Your task to perform on an android device: open app "The Home Depot" Image 0: 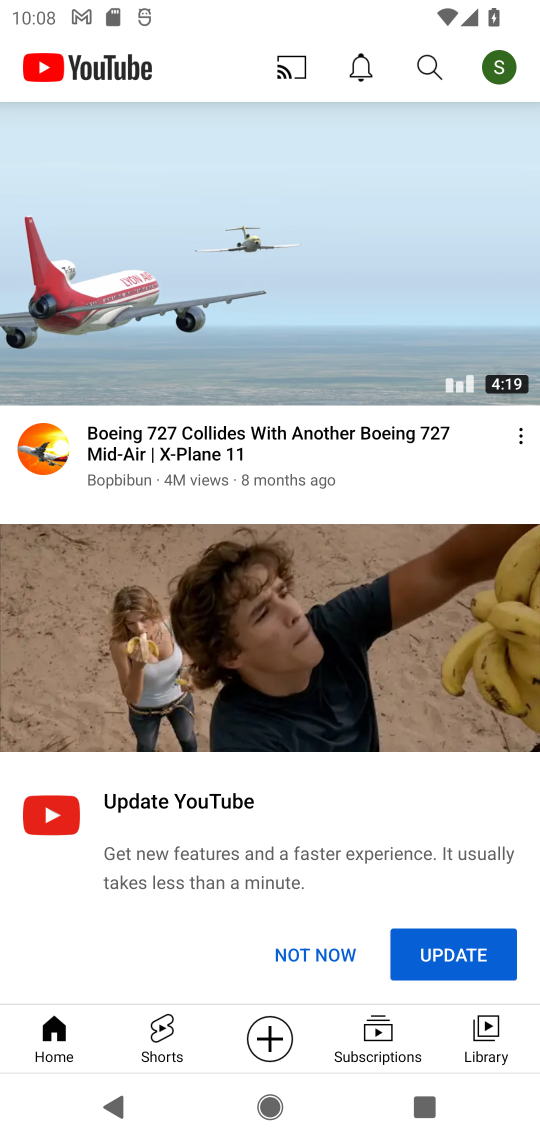
Step 0: press home button
Your task to perform on an android device: open app "The Home Depot" Image 1: 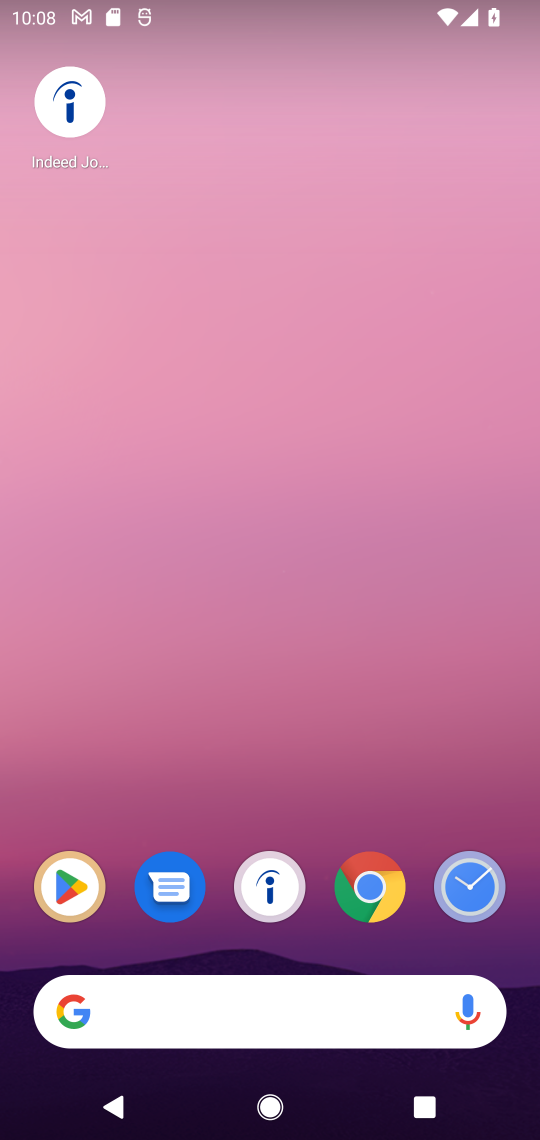
Step 1: drag from (310, 941) to (396, 42)
Your task to perform on an android device: open app "The Home Depot" Image 2: 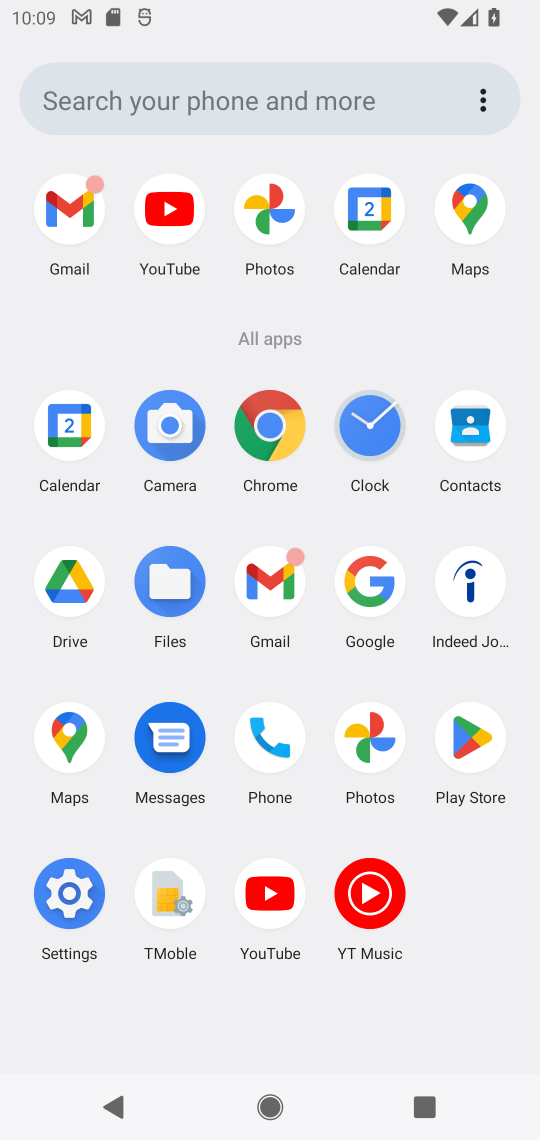
Step 2: click (489, 725)
Your task to perform on an android device: open app "The Home Depot" Image 3: 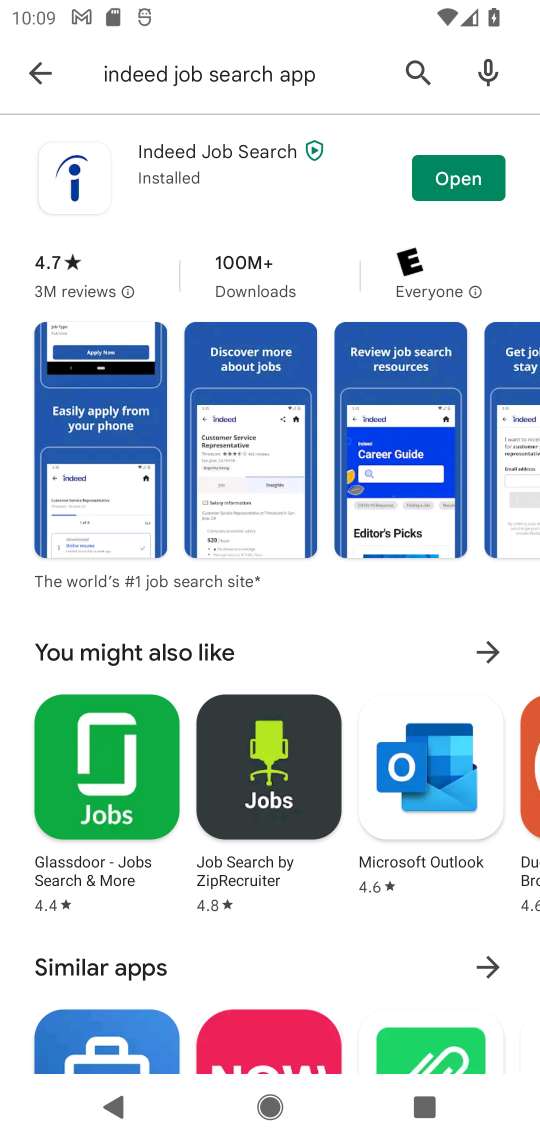
Step 3: click (24, 63)
Your task to perform on an android device: open app "The Home Depot" Image 4: 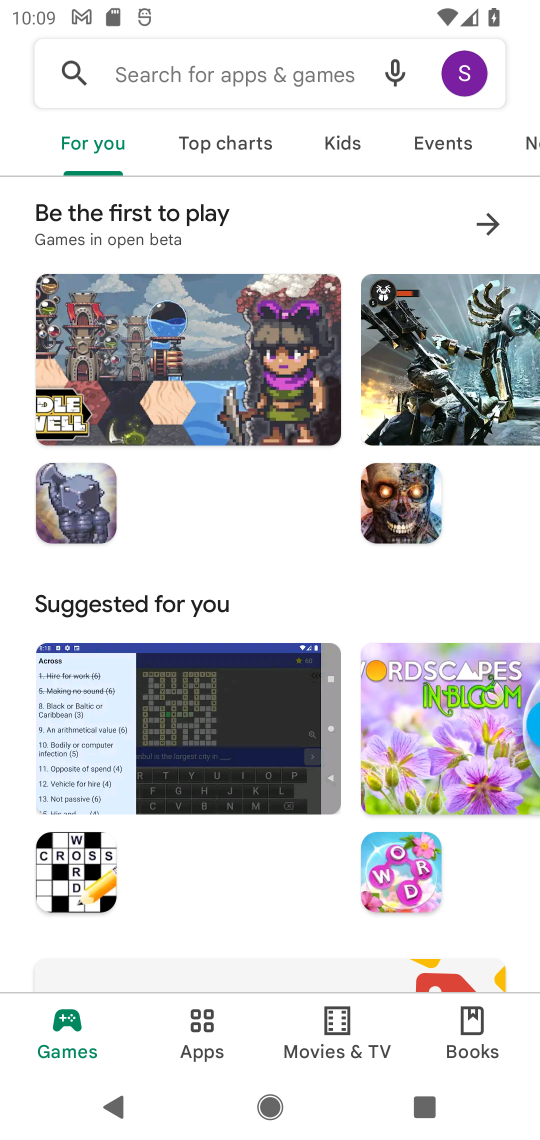
Step 4: click (117, 89)
Your task to perform on an android device: open app "The Home Depot" Image 5: 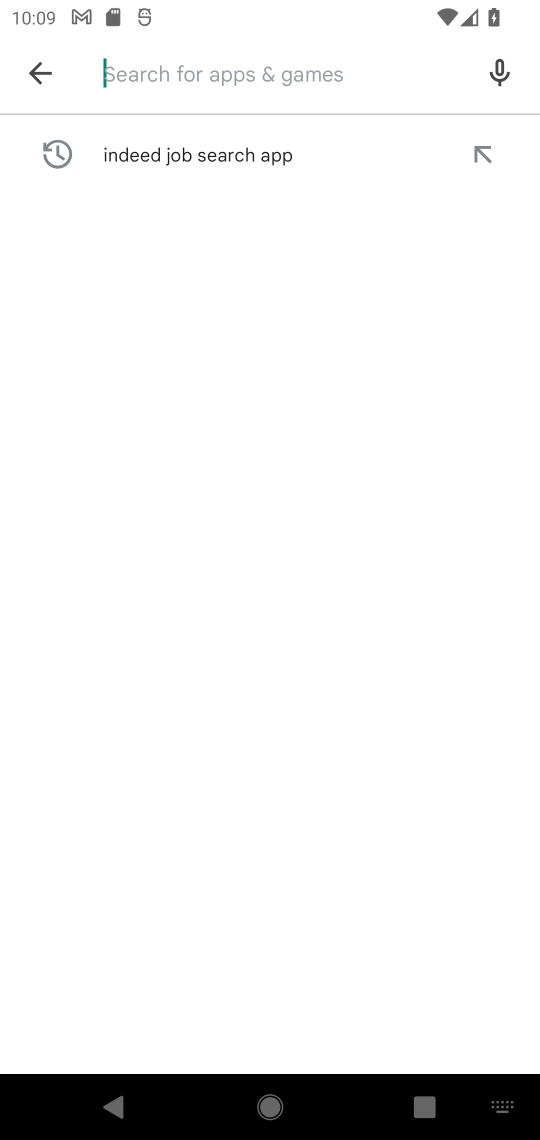
Step 5: type "he Home Depot""
Your task to perform on an android device: open app "The Home Depot" Image 6: 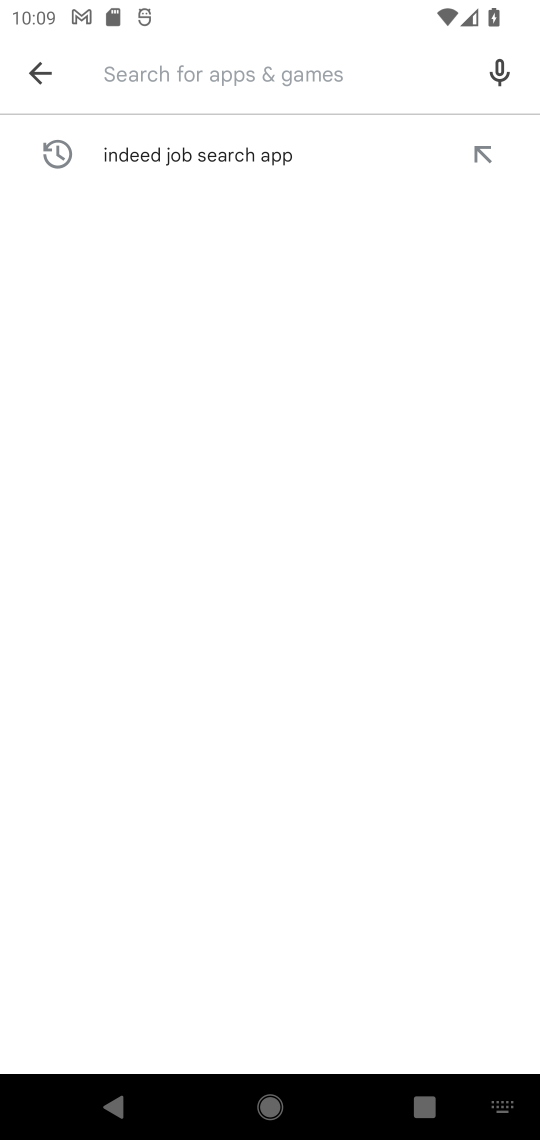
Step 6: type ""
Your task to perform on an android device: open app "The Home Depot" Image 7: 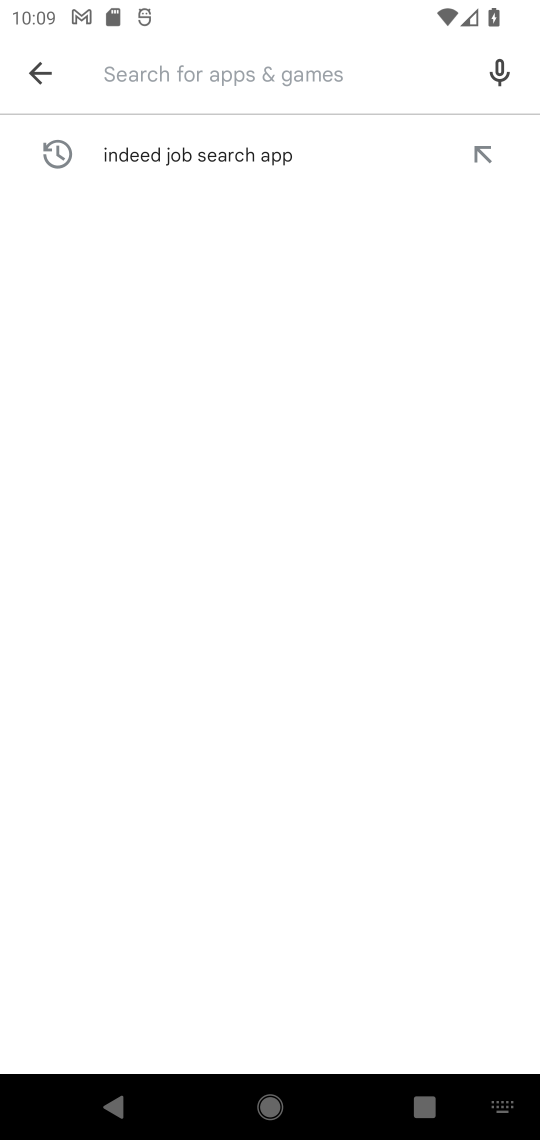
Step 7: type "The Home Depot"
Your task to perform on an android device: open app "The Home Depot" Image 8: 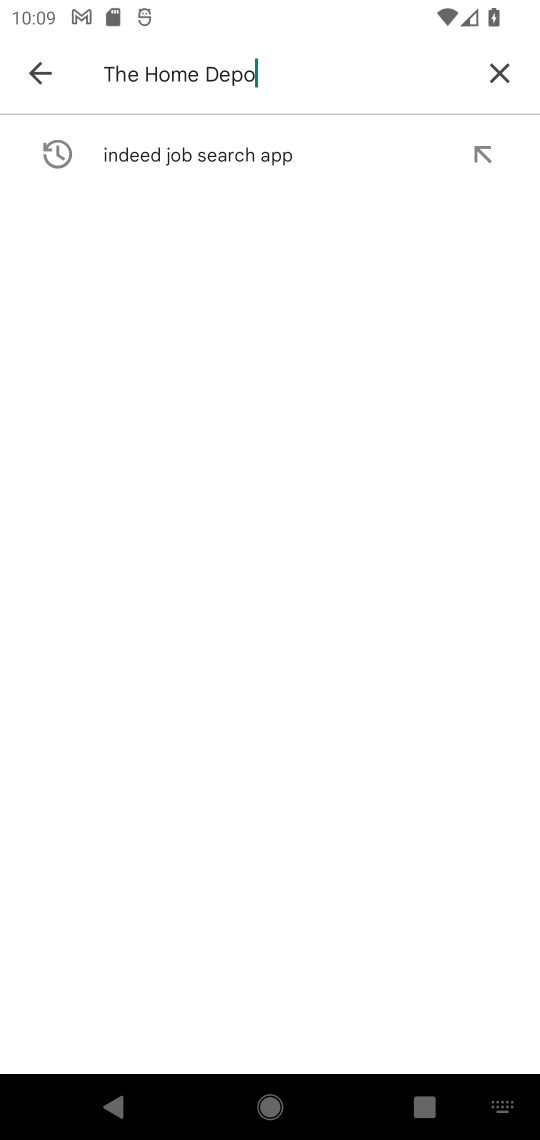
Step 8: type ""
Your task to perform on an android device: open app "The Home Depot" Image 9: 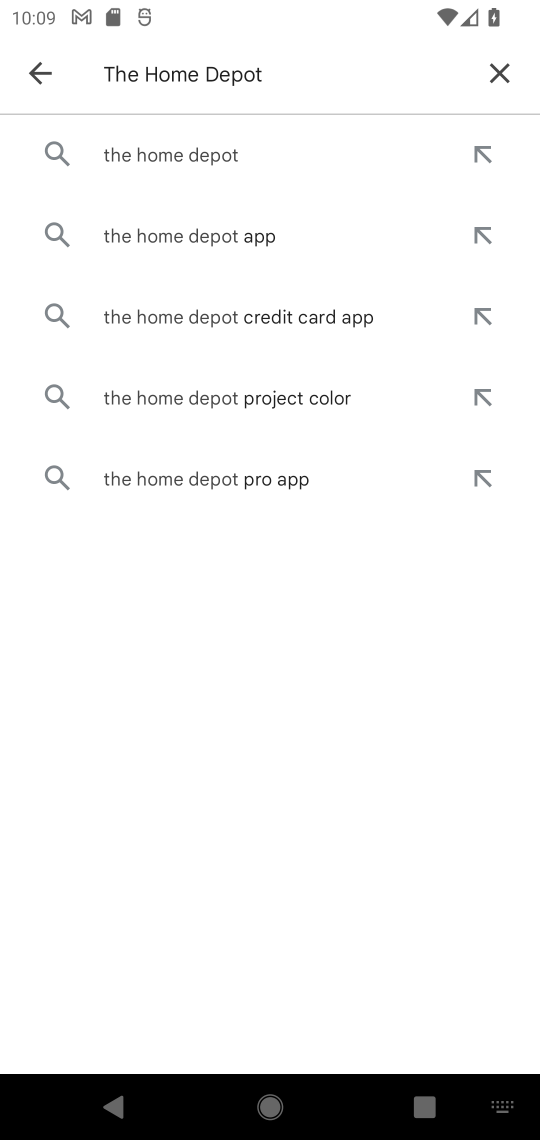
Step 9: click (250, 159)
Your task to perform on an android device: open app "The Home Depot" Image 10: 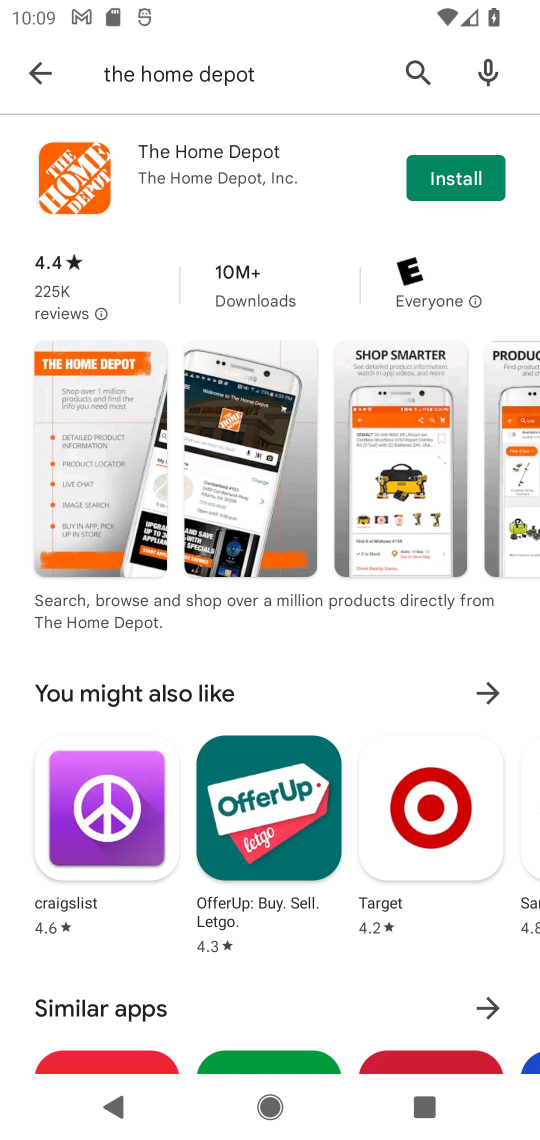
Step 10: task complete